Your task to perform on an android device: Open privacy settings Image 0: 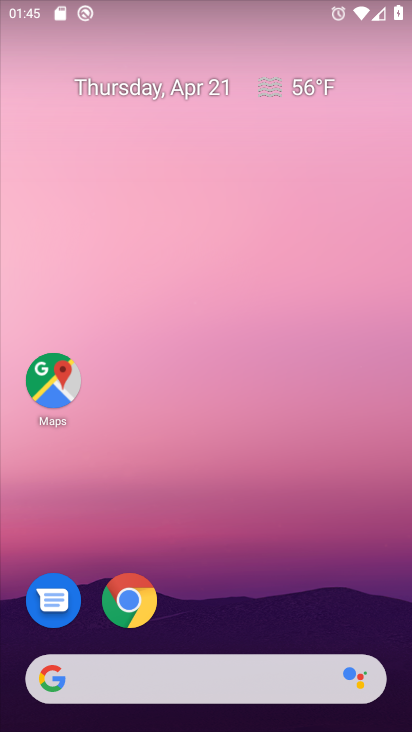
Step 0: drag from (248, 601) to (302, 184)
Your task to perform on an android device: Open privacy settings Image 1: 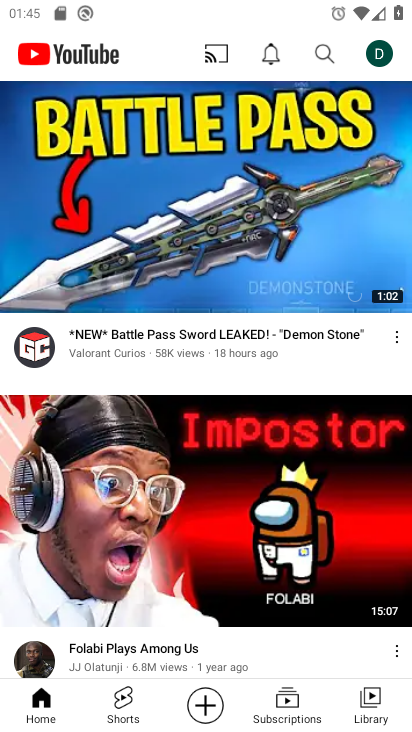
Step 1: press home button
Your task to perform on an android device: Open privacy settings Image 2: 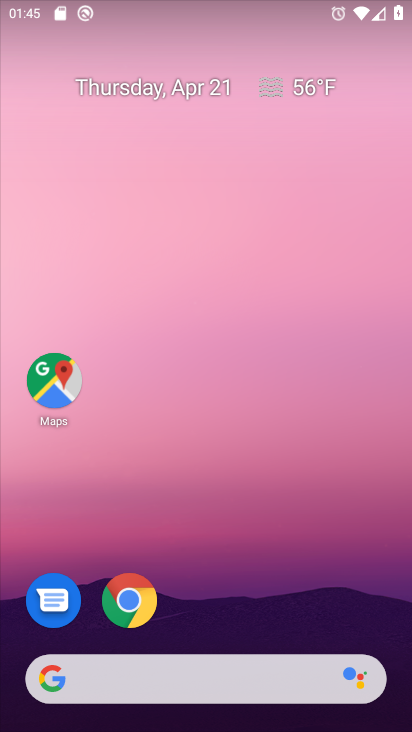
Step 2: drag from (213, 611) to (265, 124)
Your task to perform on an android device: Open privacy settings Image 3: 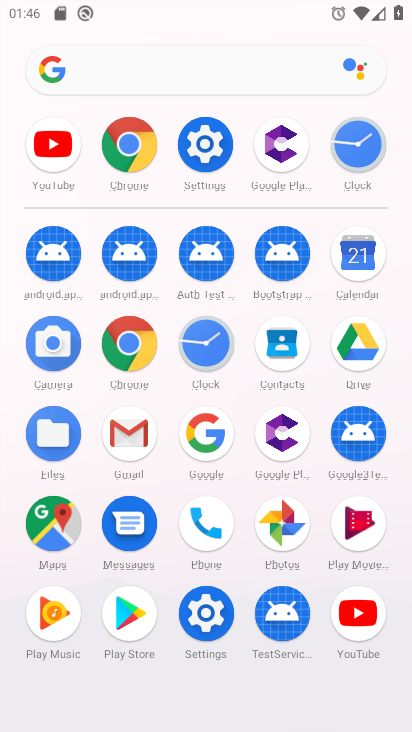
Step 3: click (130, 152)
Your task to perform on an android device: Open privacy settings Image 4: 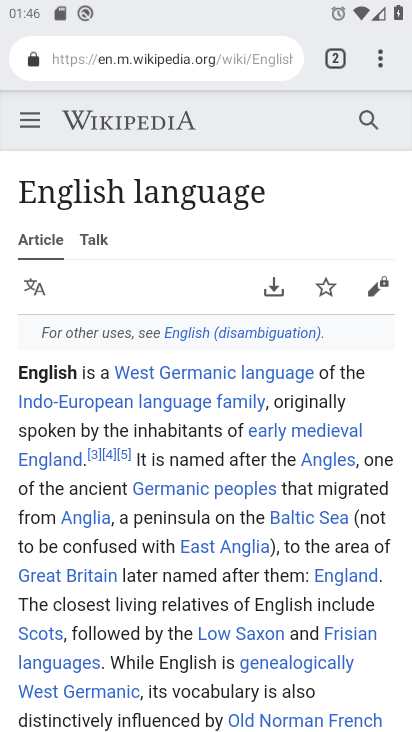
Step 4: click (384, 56)
Your task to perform on an android device: Open privacy settings Image 5: 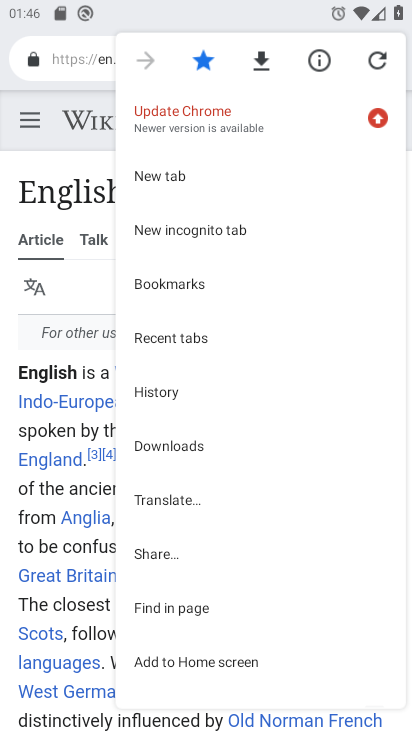
Step 5: drag from (263, 534) to (261, 303)
Your task to perform on an android device: Open privacy settings Image 6: 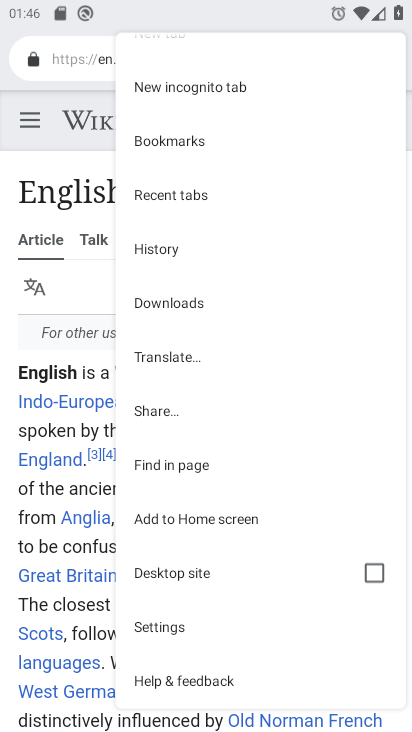
Step 6: click (208, 631)
Your task to perform on an android device: Open privacy settings Image 7: 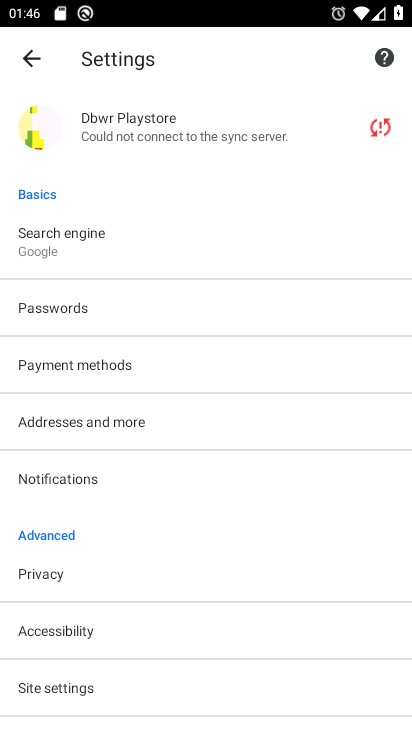
Step 7: click (195, 575)
Your task to perform on an android device: Open privacy settings Image 8: 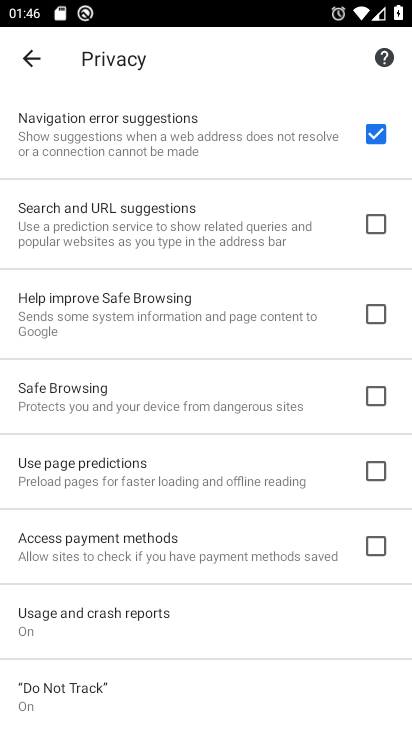
Step 8: task complete